Your task to perform on an android device: Open the calendar app, open the side menu, and click the "Day" option Image 0: 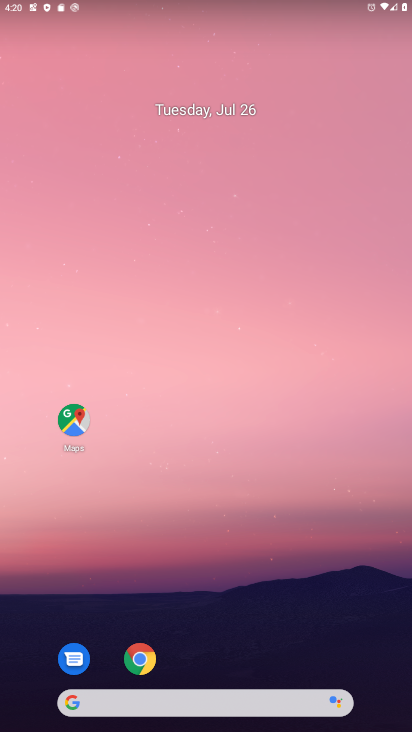
Step 0: press home button
Your task to perform on an android device: Open the calendar app, open the side menu, and click the "Day" option Image 1: 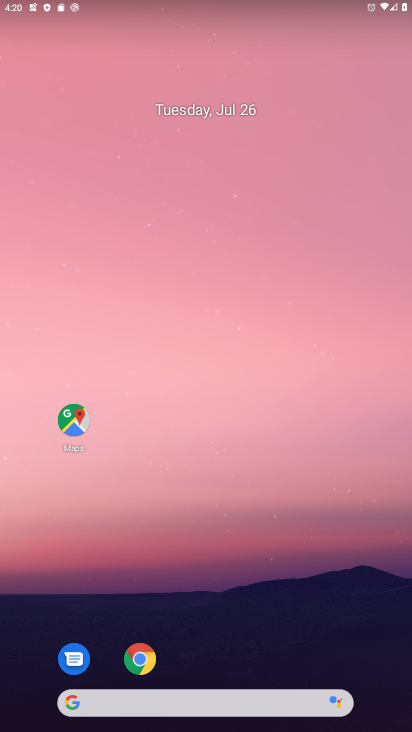
Step 1: drag from (231, 652) to (253, 114)
Your task to perform on an android device: Open the calendar app, open the side menu, and click the "Day" option Image 2: 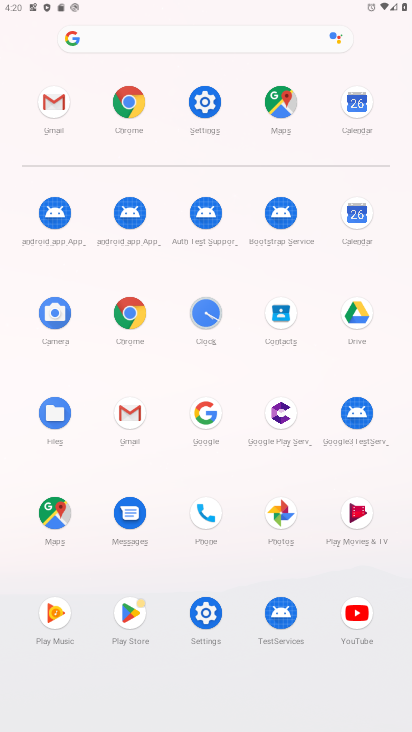
Step 2: click (366, 216)
Your task to perform on an android device: Open the calendar app, open the side menu, and click the "Day" option Image 3: 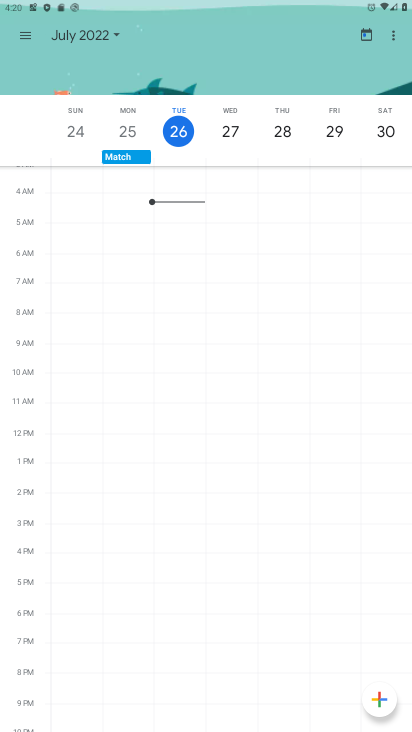
Step 3: click (33, 38)
Your task to perform on an android device: Open the calendar app, open the side menu, and click the "Day" option Image 4: 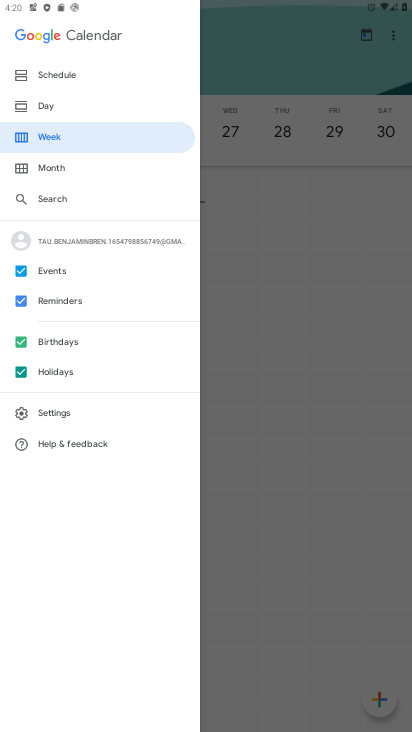
Step 4: click (40, 110)
Your task to perform on an android device: Open the calendar app, open the side menu, and click the "Day" option Image 5: 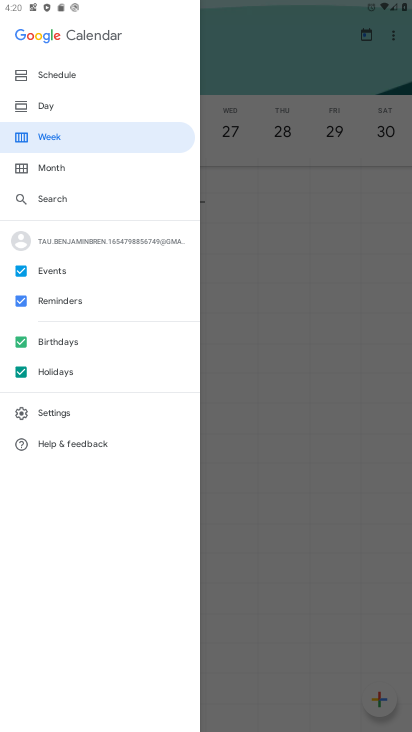
Step 5: click (45, 107)
Your task to perform on an android device: Open the calendar app, open the side menu, and click the "Day" option Image 6: 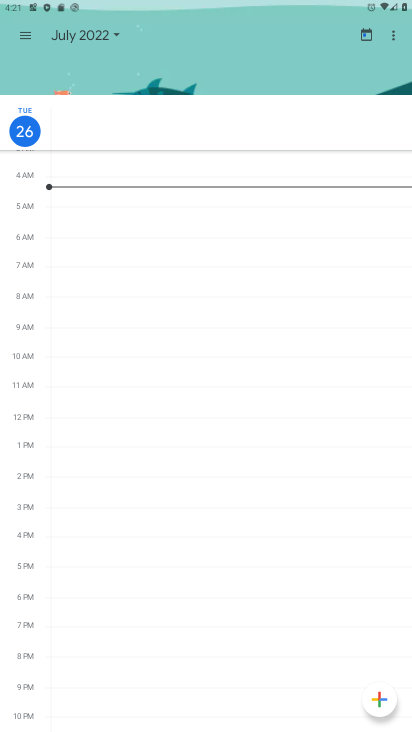
Step 6: task complete